Your task to perform on an android device: Show the shopping cart on amazon. Search for dell xps on amazon, select the first entry, and add it to the cart. Image 0: 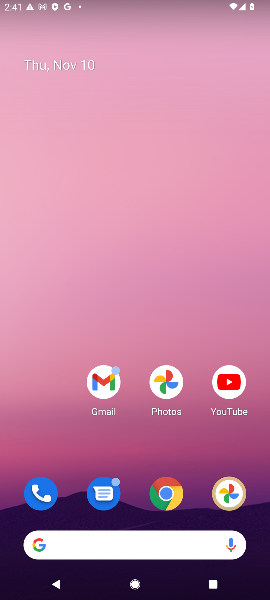
Step 0: drag from (134, 507) to (101, 109)
Your task to perform on an android device: Show the shopping cart on amazon. Search for dell xps on amazon, select the first entry, and add it to the cart. Image 1: 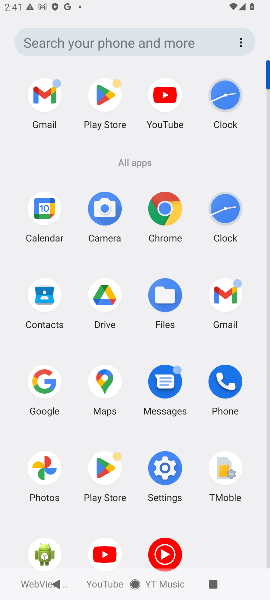
Step 1: click (44, 384)
Your task to perform on an android device: Show the shopping cart on amazon. Search for dell xps on amazon, select the first entry, and add it to the cart. Image 2: 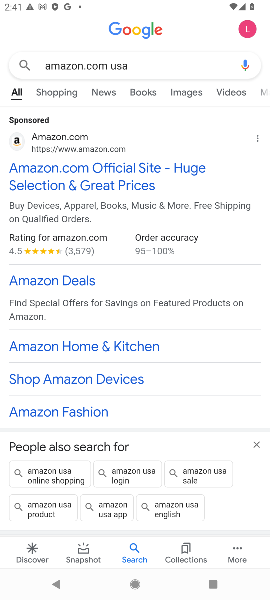
Step 2: click (19, 138)
Your task to perform on an android device: Show the shopping cart on amazon. Search for dell xps on amazon, select the first entry, and add it to the cart. Image 3: 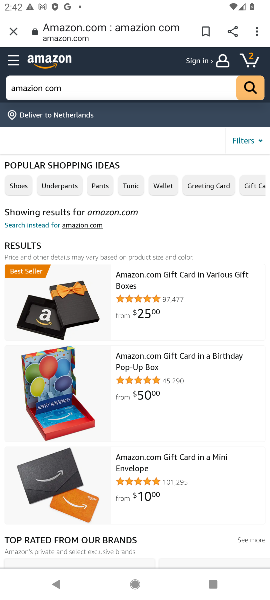
Step 3: click (96, 85)
Your task to perform on an android device: Show the shopping cart on amazon. Search for dell xps on amazon, select the first entry, and add it to the cart. Image 4: 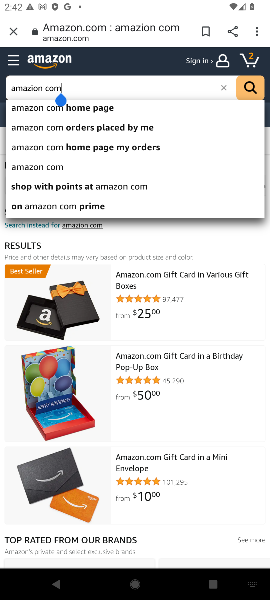
Step 4: click (224, 87)
Your task to perform on an android device: Show the shopping cart on amazon. Search for dell xps on amazon, select the first entry, and add it to the cart. Image 5: 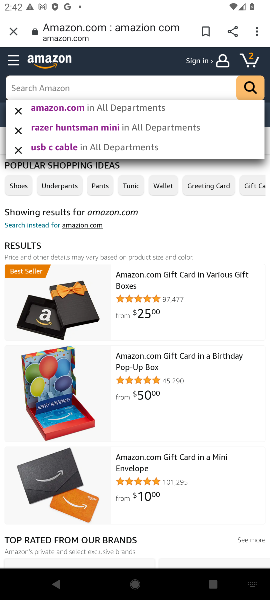
Step 5: click (49, 81)
Your task to perform on an android device: Show the shopping cart on amazon. Search for dell xps on amazon, select the first entry, and add it to the cart. Image 6: 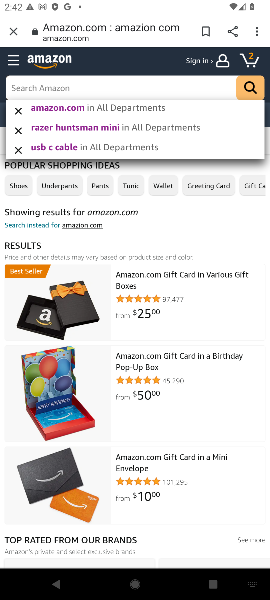
Step 6: type "dell xps  "
Your task to perform on an android device: Show the shopping cart on amazon. Search for dell xps on amazon, select the first entry, and add it to the cart. Image 7: 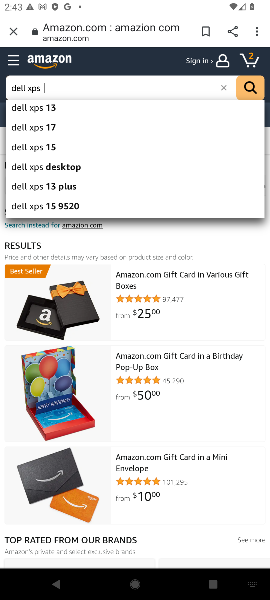
Step 7: click (46, 107)
Your task to perform on an android device: Show the shopping cart on amazon. Search for dell xps on amazon, select the first entry, and add it to the cart. Image 8: 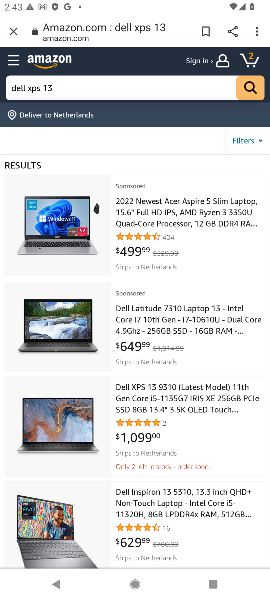
Step 8: click (150, 388)
Your task to perform on an android device: Show the shopping cart on amazon. Search for dell xps on amazon, select the first entry, and add it to the cart. Image 9: 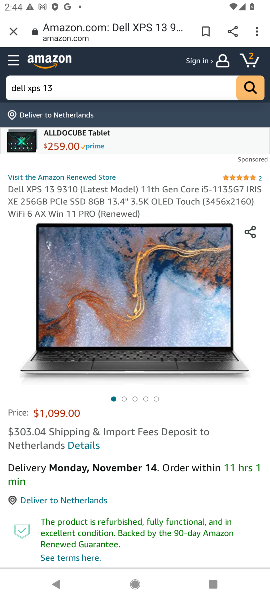
Step 9: drag from (215, 522) to (218, 177)
Your task to perform on an android device: Show the shopping cart on amazon. Search for dell xps on amazon, select the first entry, and add it to the cart. Image 10: 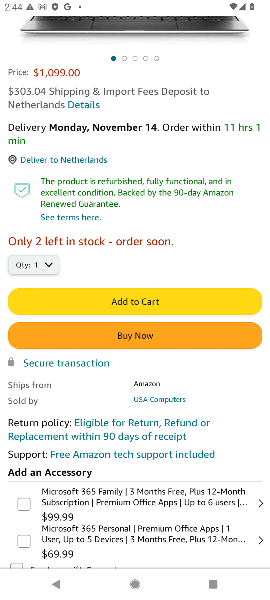
Step 10: click (167, 291)
Your task to perform on an android device: Show the shopping cart on amazon. Search for dell xps on amazon, select the first entry, and add it to the cart. Image 11: 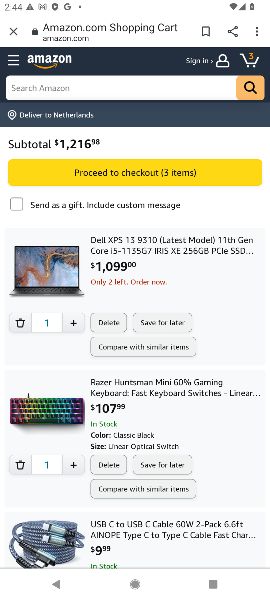
Step 11: task complete